Your task to perform on an android device: find snoozed emails in the gmail app Image 0: 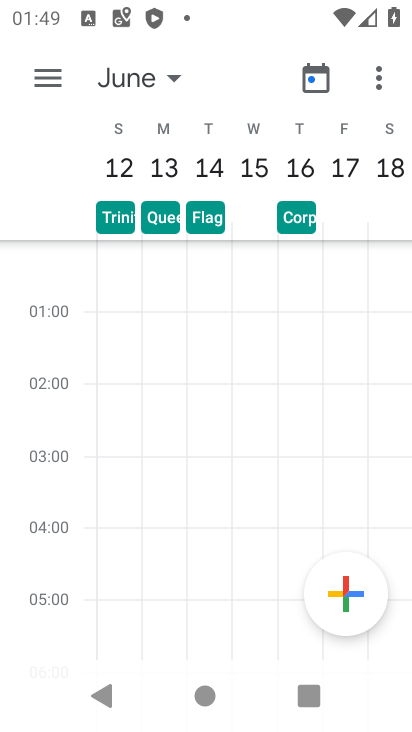
Step 0: press home button
Your task to perform on an android device: find snoozed emails in the gmail app Image 1: 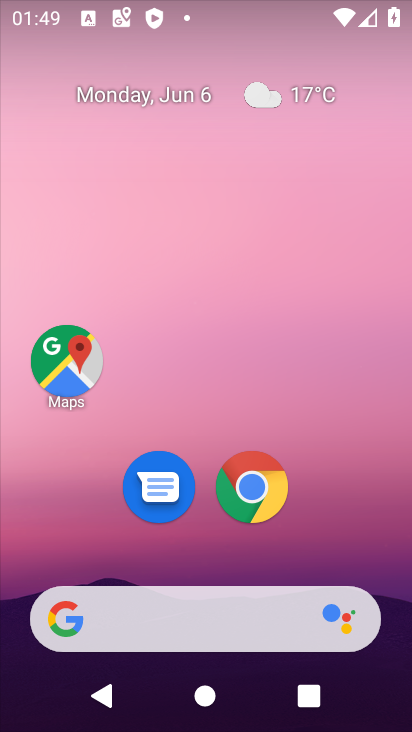
Step 1: drag from (398, 637) to (354, 46)
Your task to perform on an android device: find snoozed emails in the gmail app Image 2: 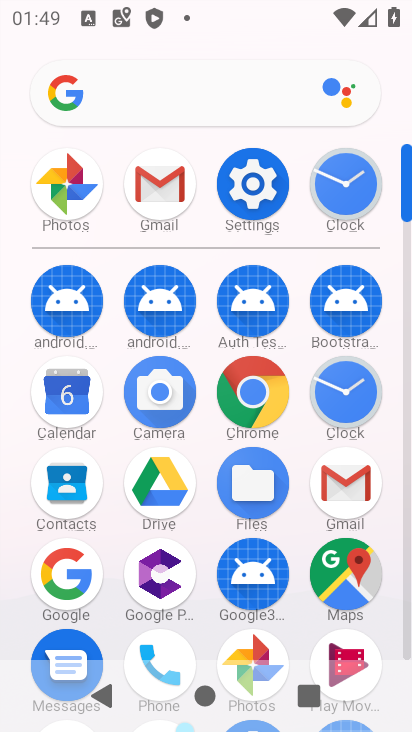
Step 2: click (403, 629)
Your task to perform on an android device: find snoozed emails in the gmail app Image 3: 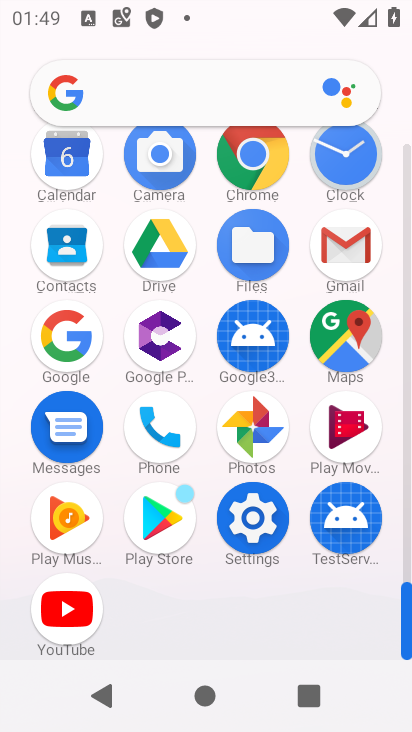
Step 3: click (340, 245)
Your task to perform on an android device: find snoozed emails in the gmail app Image 4: 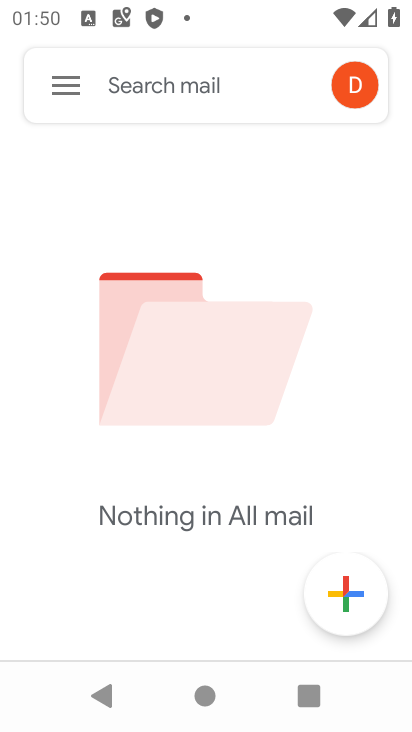
Step 4: click (67, 86)
Your task to perform on an android device: find snoozed emails in the gmail app Image 5: 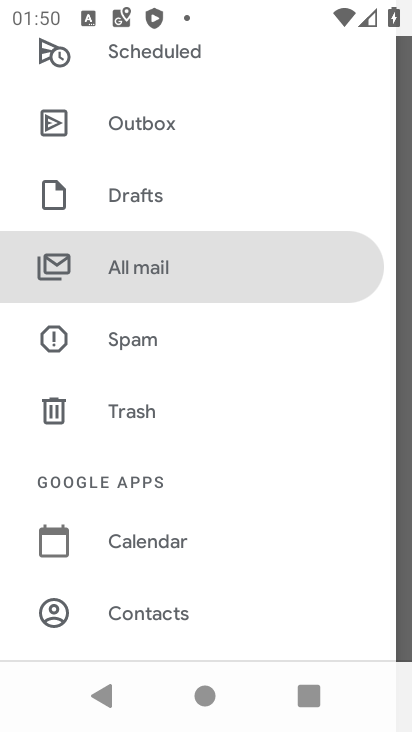
Step 5: drag from (256, 314) to (242, 488)
Your task to perform on an android device: find snoozed emails in the gmail app Image 6: 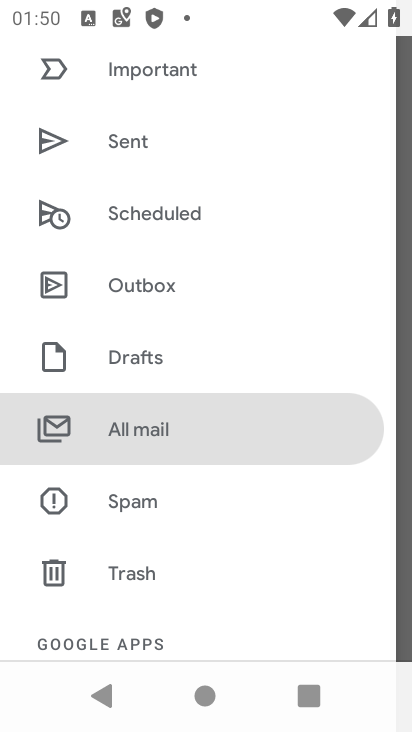
Step 6: drag from (273, 180) to (250, 385)
Your task to perform on an android device: find snoozed emails in the gmail app Image 7: 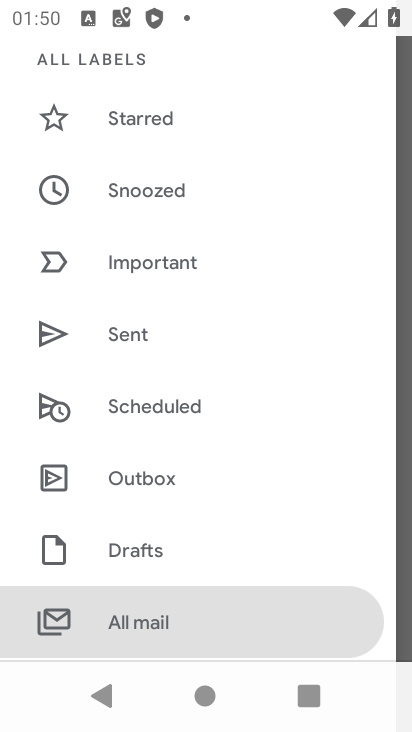
Step 7: click (130, 199)
Your task to perform on an android device: find snoozed emails in the gmail app Image 8: 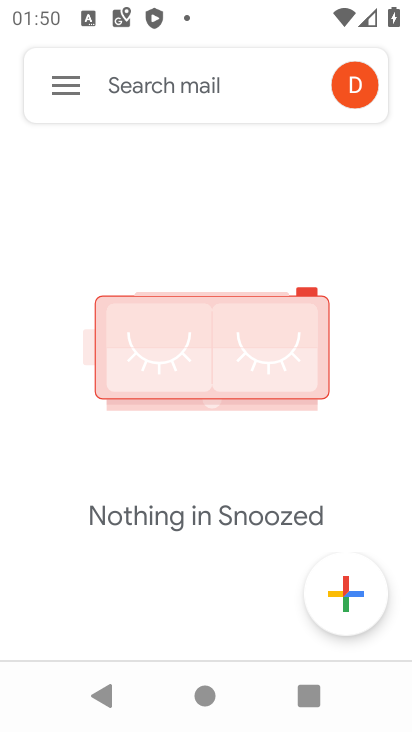
Step 8: task complete